Your task to perform on an android device: toggle notification dots Image 0: 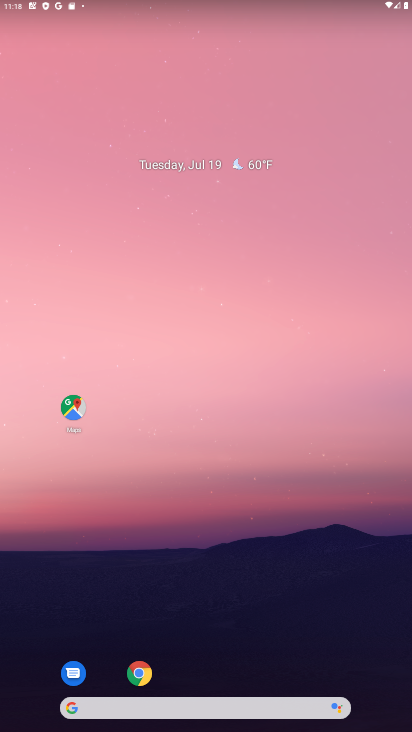
Step 0: drag from (373, 687) to (315, 155)
Your task to perform on an android device: toggle notification dots Image 1: 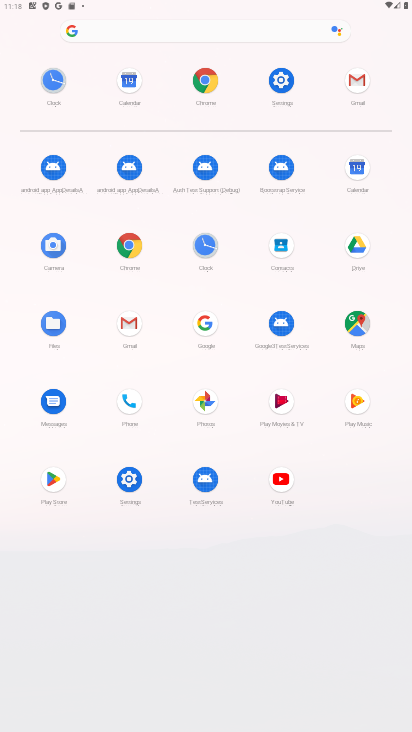
Step 1: click (130, 481)
Your task to perform on an android device: toggle notification dots Image 2: 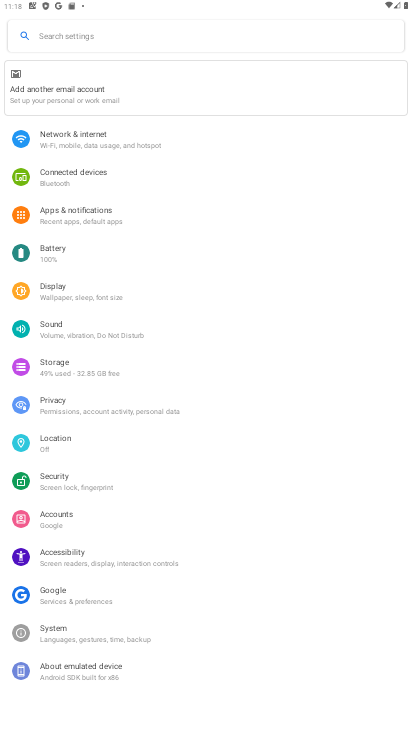
Step 2: click (66, 211)
Your task to perform on an android device: toggle notification dots Image 3: 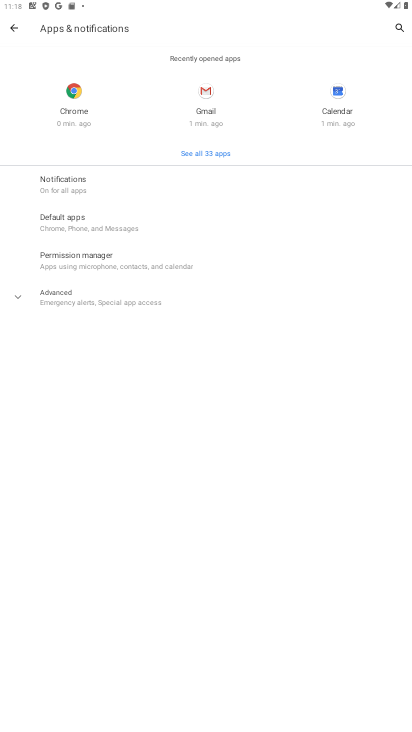
Step 3: click (56, 179)
Your task to perform on an android device: toggle notification dots Image 4: 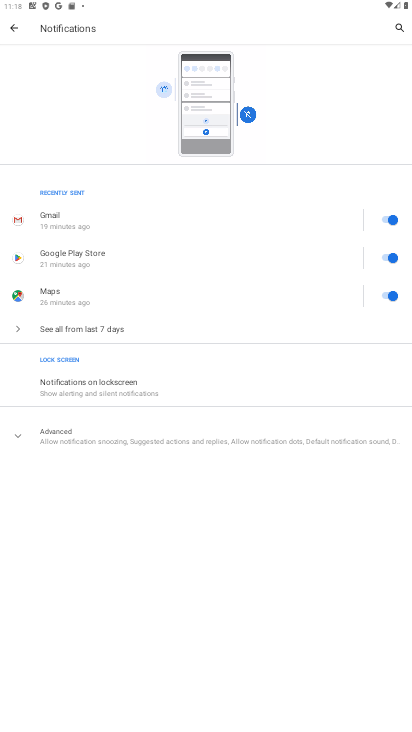
Step 4: click (16, 429)
Your task to perform on an android device: toggle notification dots Image 5: 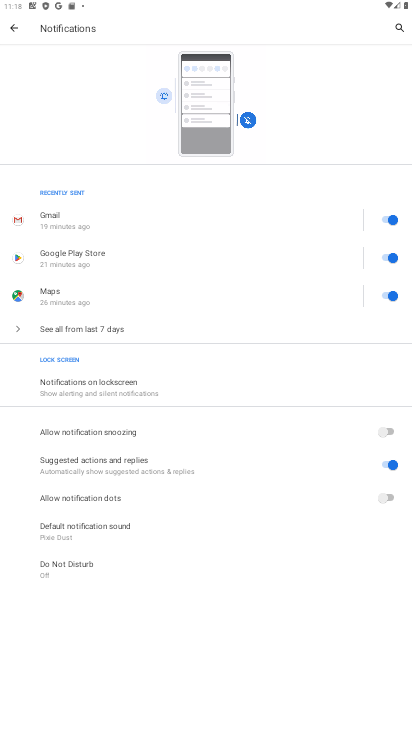
Step 5: click (392, 496)
Your task to perform on an android device: toggle notification dots Image 6: 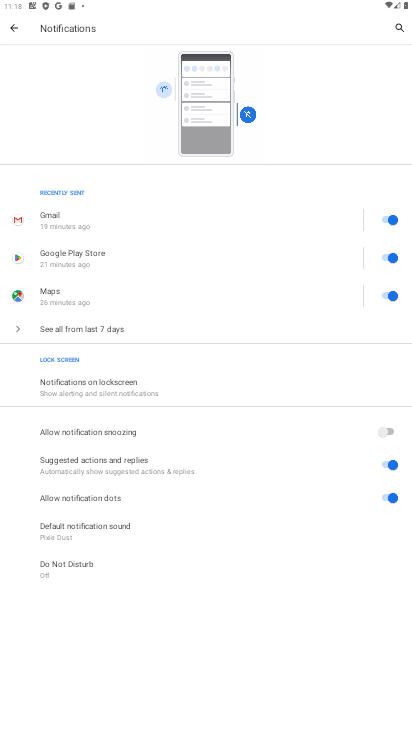
Step 6: task complete